Your task to perform on an android device: set default search engine in the chrome app Image 0: 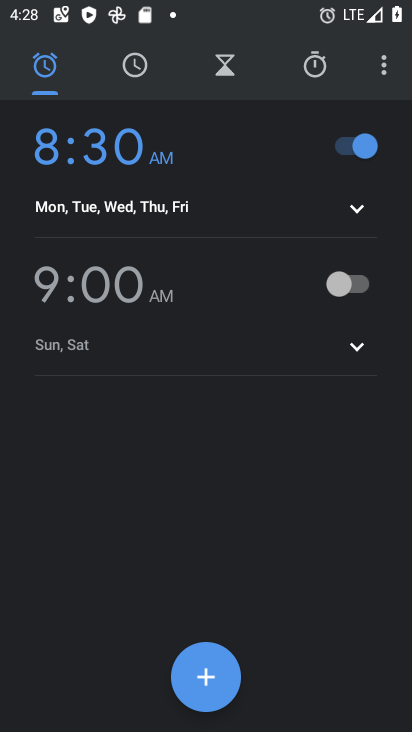
Step 0: press home button
Your task to perform on an android device: set default search engine in the chrome app Image 1: 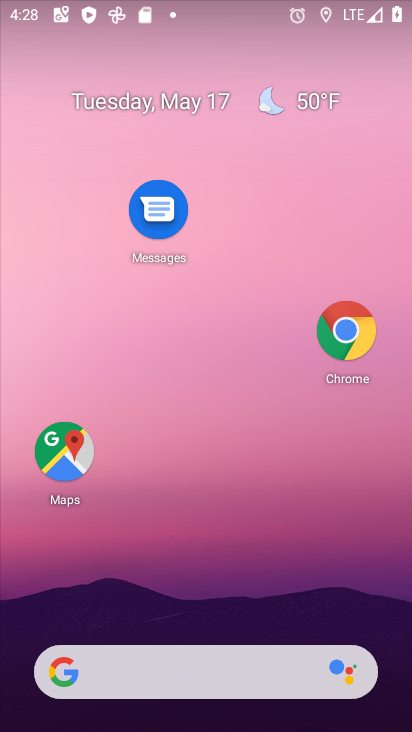
Step 1: click (381, 341)
Your task to perform on an android device: set default search engine in the chrome app Image 2: 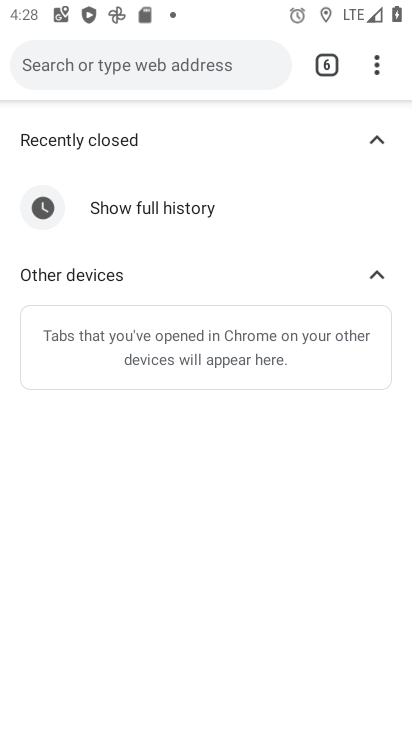
Step 2: click (384, 76)
Your task to perform on an android device: set default search engine in the chrome app Image 3: 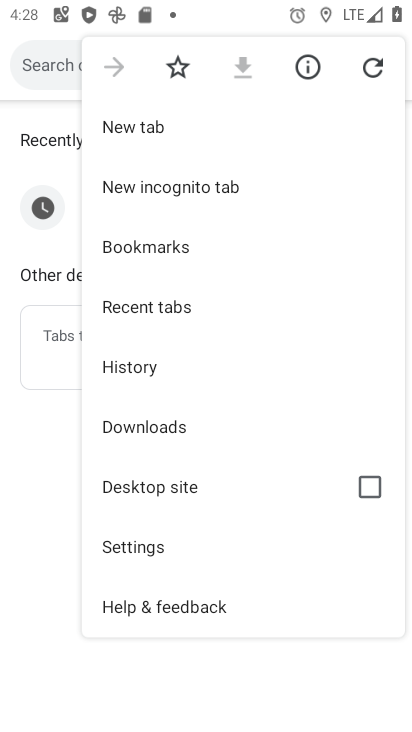
Step 3: click (212, 548)
Your task to perform on an android device: set default search engine in the chrome app Image 4: 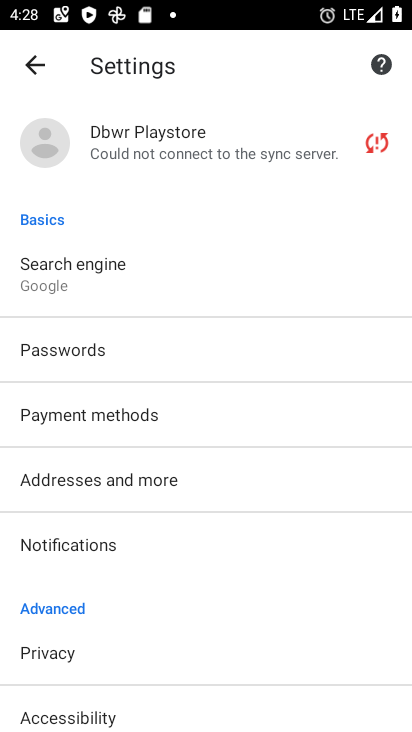
Step 4: drag from (147, 551) to (86, 101)
Your task to perform on an android device: set default search engine in the chrome app Image 5: 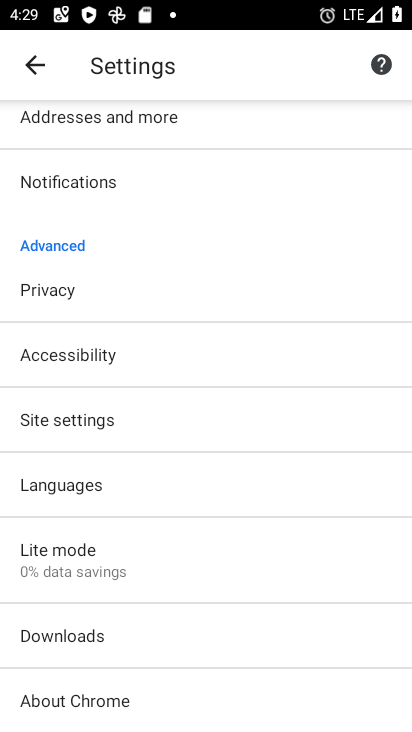
Step 5: drag from (147, 272) to (178, 544)
Your task to perform on an android device: set default search engine in the chrome app Image 6: 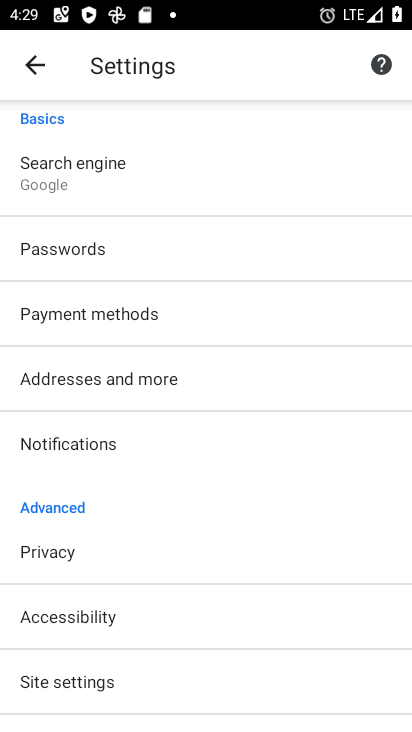
Step 6: click (43, 181)
Your task to perform on an android device: set default search engine in the chrome app Image 7: 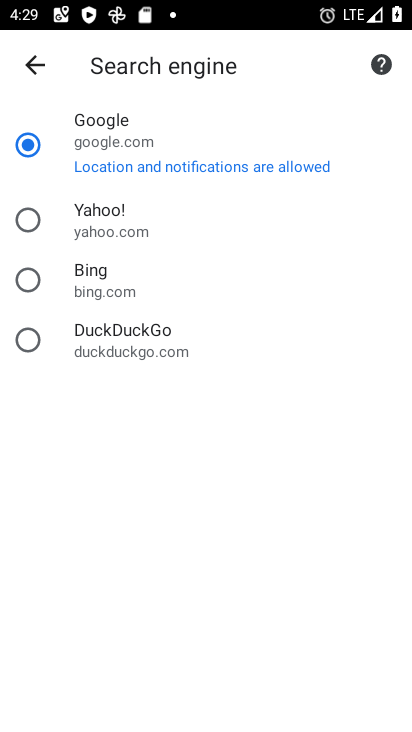
Step 7: click (55, 223)
Your task to perform on an android device: set default search engine in the chrome app Image 8: 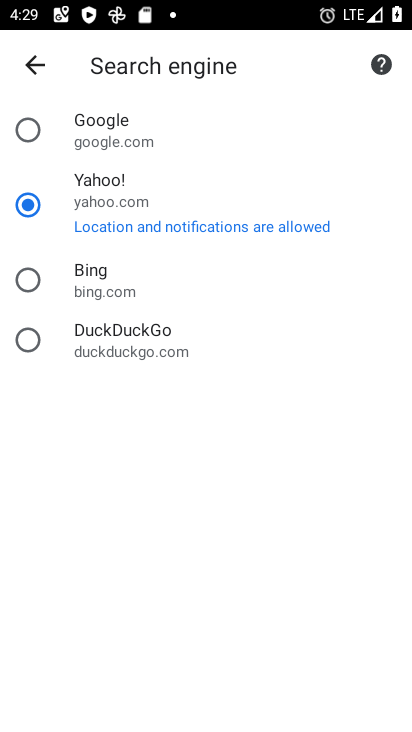
Step 8: task complete